Your task to perform on an android device: change text size in settings app Image 0: 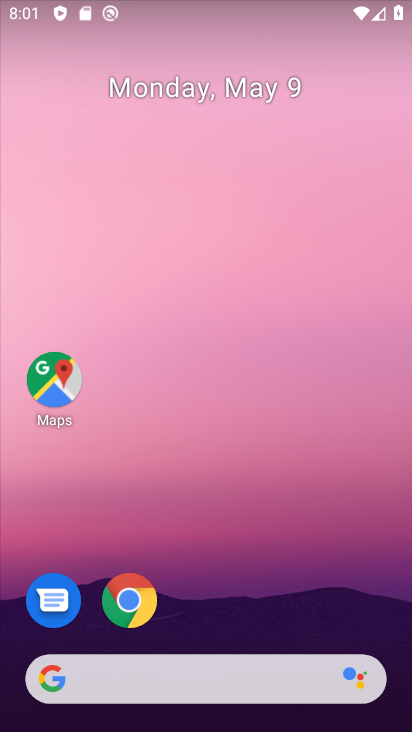
Step 0: drag from (244, 538) to (197, 24)
Your task to perform on an android device: change text size in settings app Image 1: 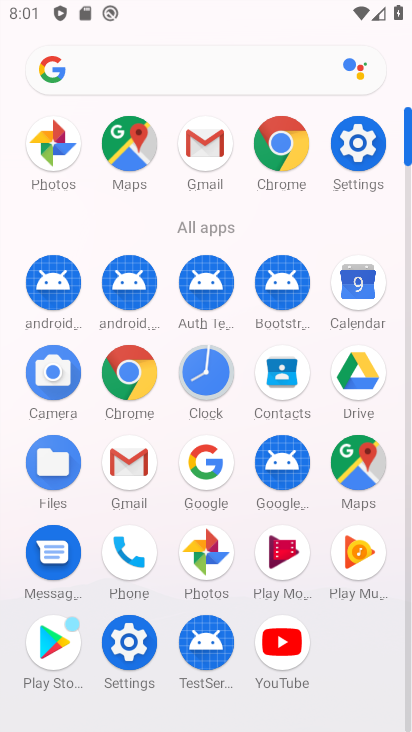
Step 1: drag from (9, 564) to (9, 272)
Your task to perform on an android device: change text size in settings app Image 2: 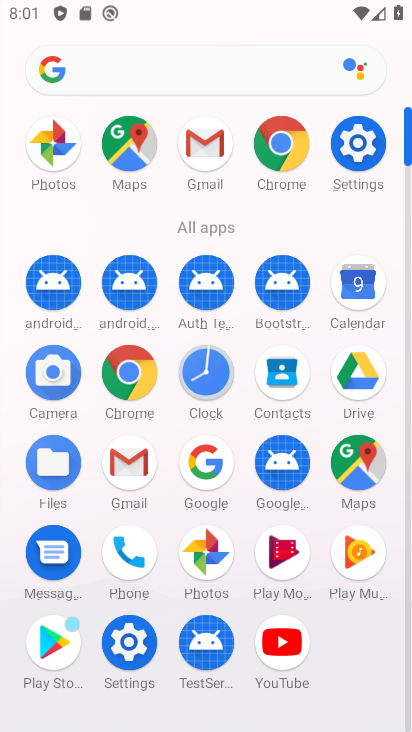
Step 2: click (126, 639)
Your task to perform on an android device: change text size in settings app Image 3: 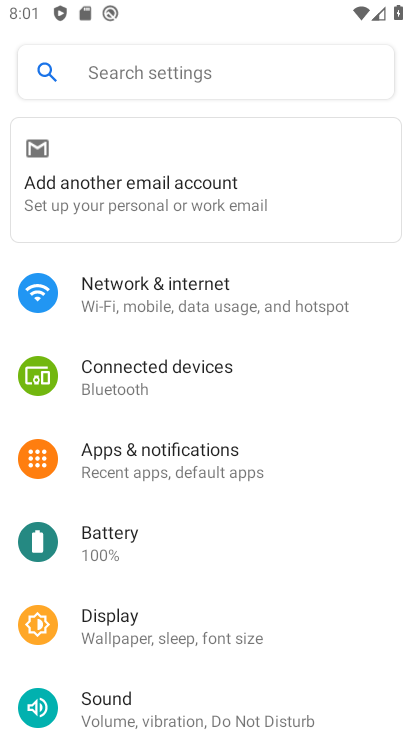
Step 3: drag from (219, 603) to (233, 201)
Your task to perform on an android device: change text size in settings app Image 4: 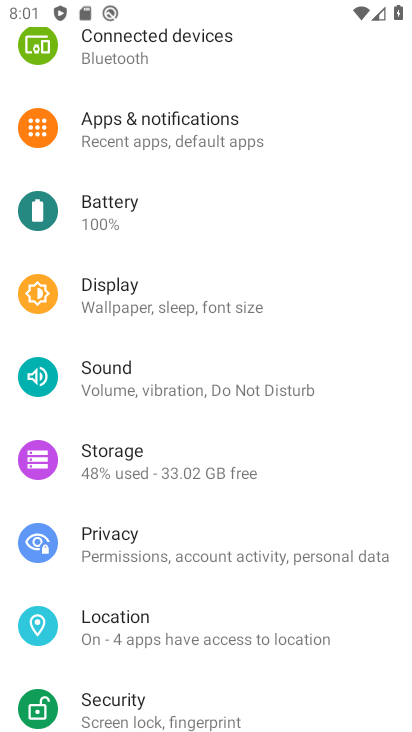
Step 4: drag from (232, 624) to (255, 253)
Your task to perform on an android device: change text size in settings app Image 5: 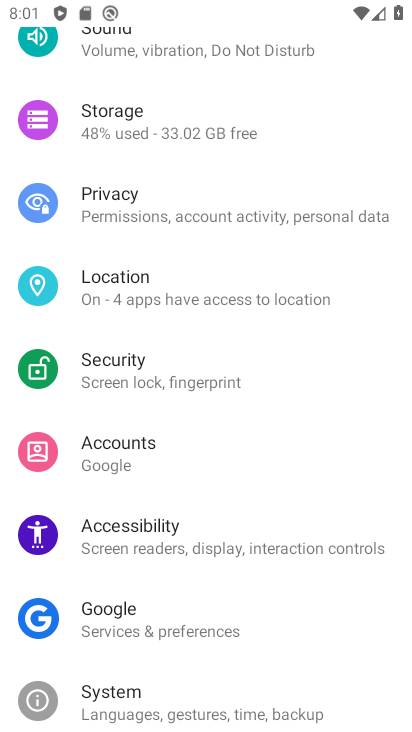
Step 5: drag from (236, 605) to (250, 327)
Your task to perform on an android device: change text size in settings app Image 6: 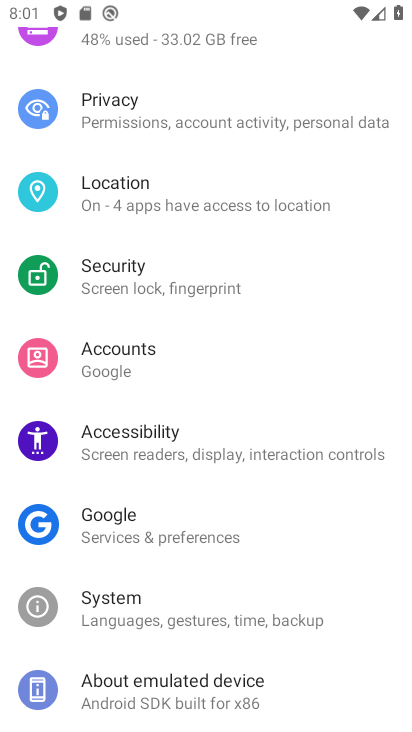
Step 6: drag from (266, 556) to (291, 207)
Your task to perform on an android device: change text size in settings app Image 7: 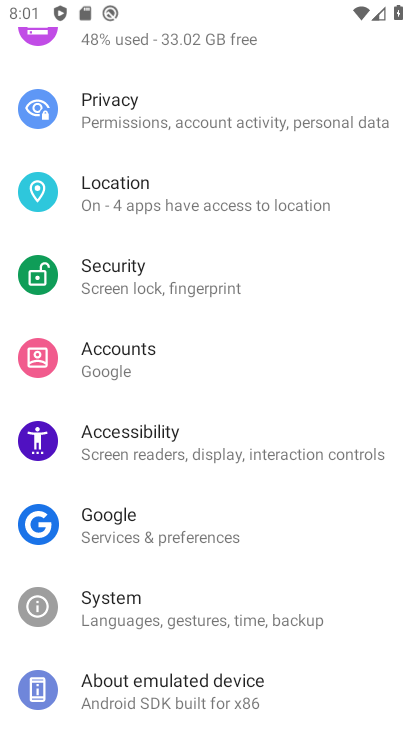
Step 7: drag from (235, 615) to (245, 212)
Your task to perform on an android device: change text size in settings app Image 8: 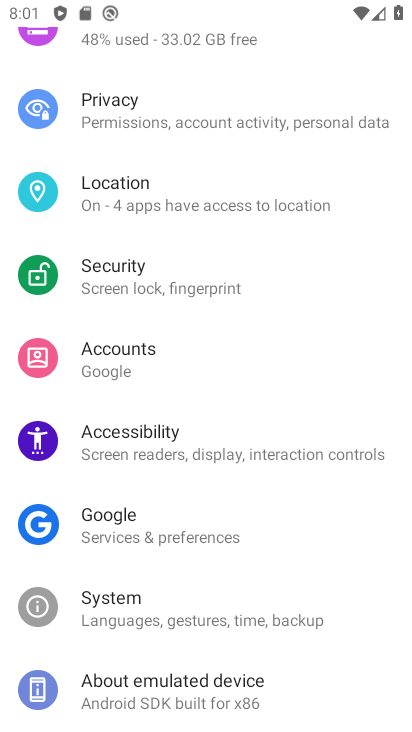
Step 8: click (176, 601)
Your task to perform on an android device: change text size in settings app Image 9: 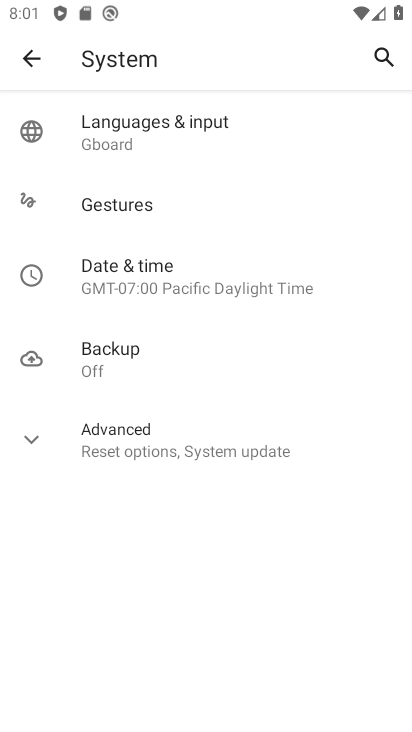
Step 9: click (32, 64)
Your task to perform on an android device: change text size in settings app Image 10: 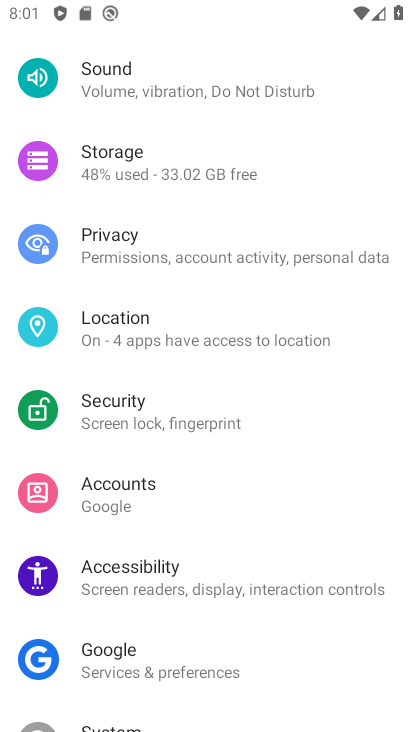
Step 10: drag from (210, 304) to (221, 651)
Your task to perform on an android device: change text size in settings app Image 11: 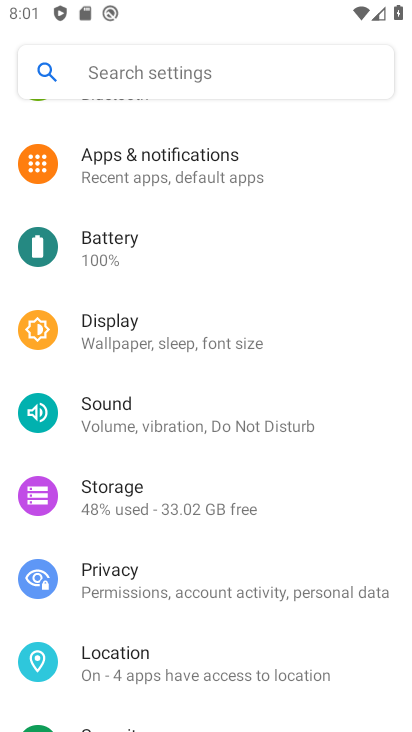
Step 11: click (151, 327)
Your task to perform on an android device: change text size in settings app Image 12: 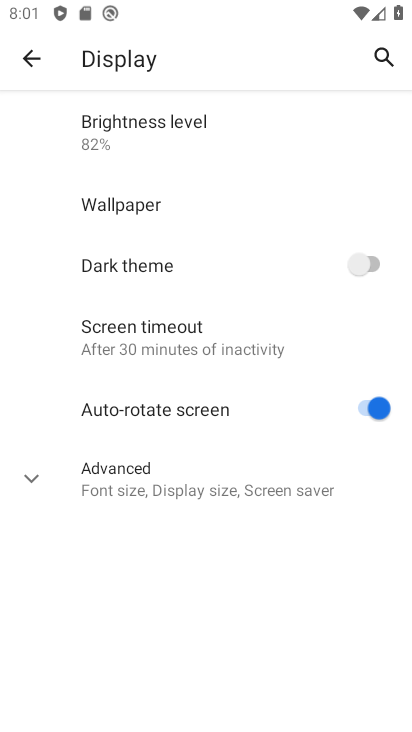
Step 12: click (48, 484)
Your task to perform on an android device: change text size in settings app Image 13: 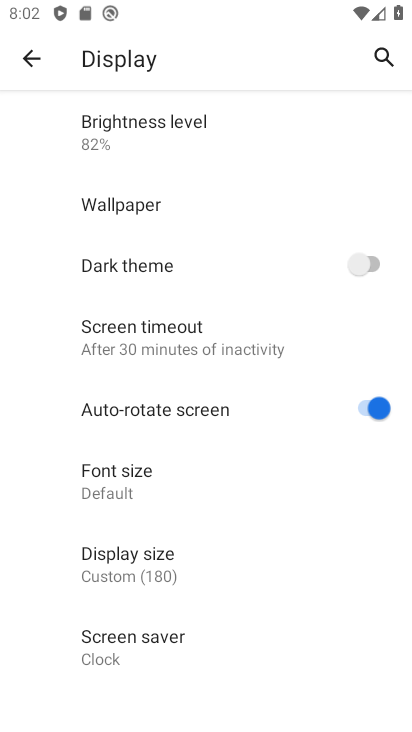
Step 13: drag from (170, 586) to (166, 213)
Your task to perform on an android device: change text size in settings app Image 14: 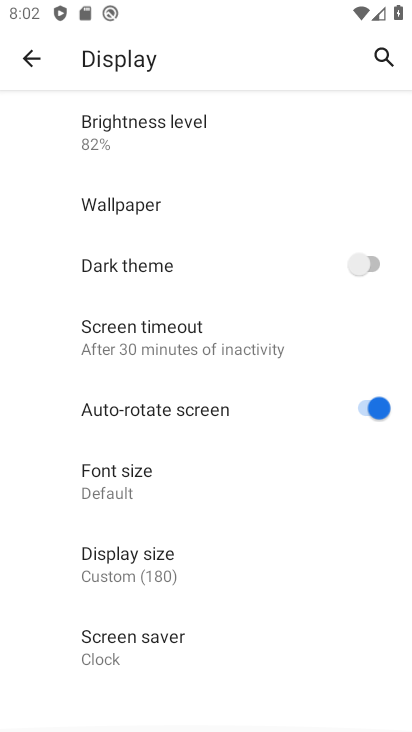
Step 14: drag from (201, 225) to (238, 571)
Your task to perform on an android device: change text size in settings app Image 15: 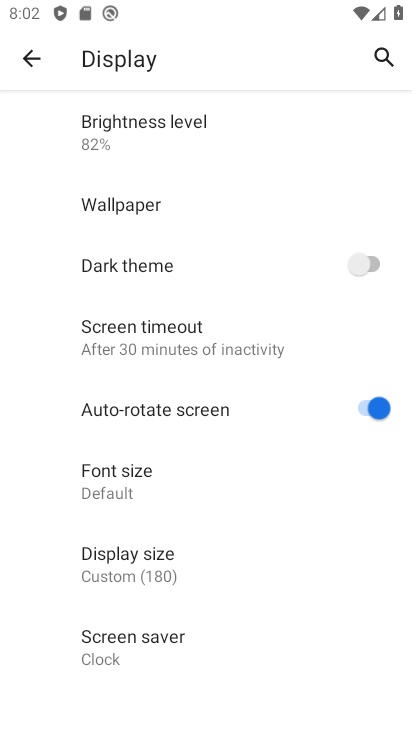
Step 15: click (157, 481)
Your task to perform on an android device: change text size in settings app Image 16: 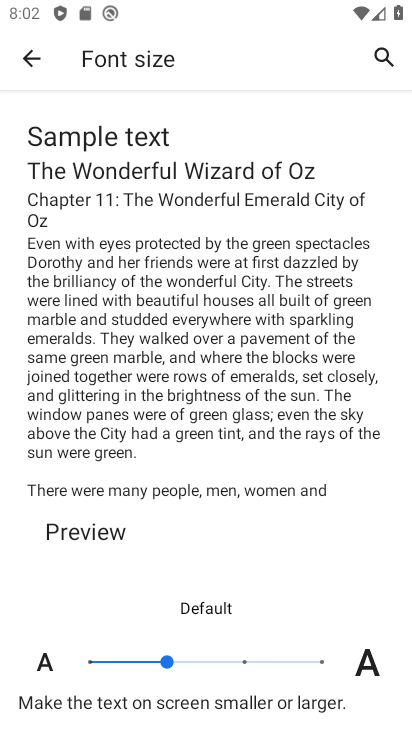
Step 16: click (240, 650)
Your task to perform on an android device: change text size in settings app Image 17: 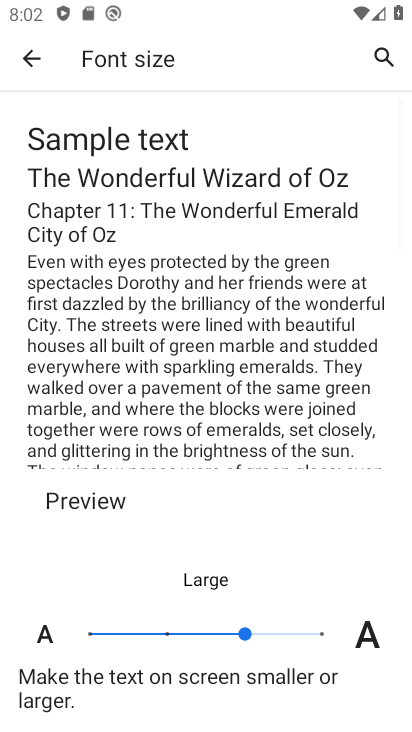
Step 17: task complete